Your task to perform on an android device: move a message to another label in the gmail app Image 0: 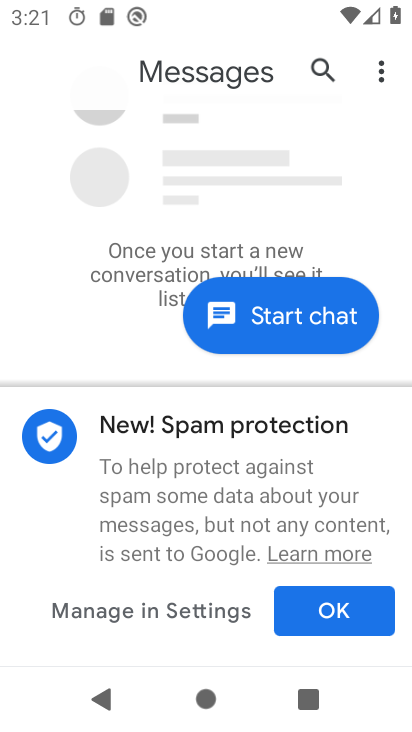
Step 0: press home button
Your task to perform on an android device: move a message to another label in the gmail app Image 1: 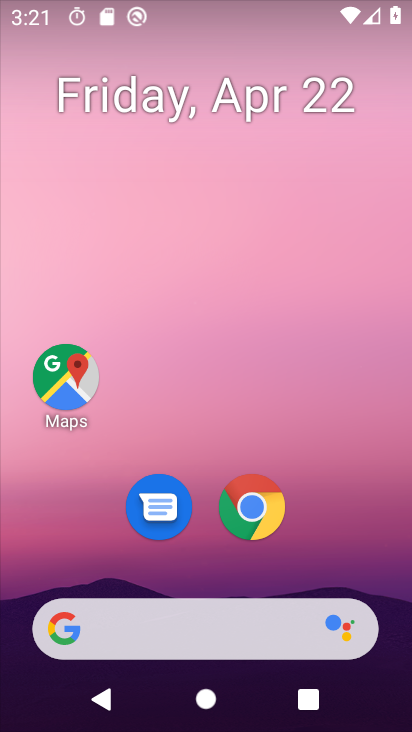
Step 1: drag from (311, 553) to (385, 76)
Your task to perform on an android device: move a message to another label in the gmail app Image 2: 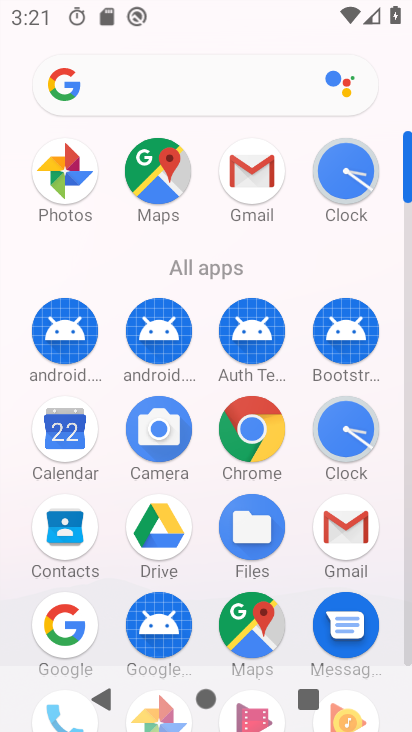
Step 2: click (246, 199)
Your task to perform on an android device: move a message to another label in the gmail app Image 3: 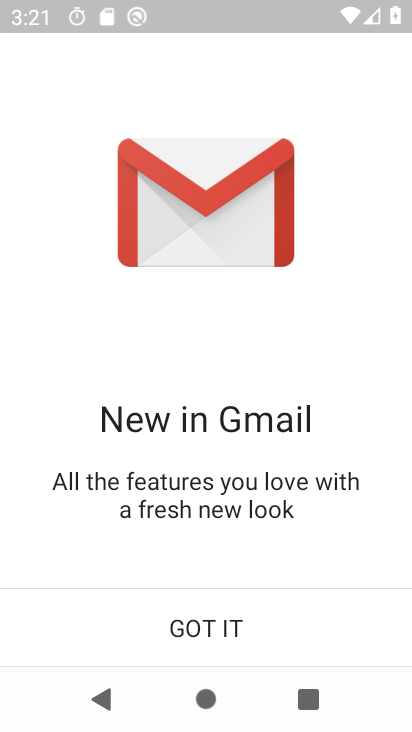
Step 3: click (204, 628)
Your task to perform on an android device: move a message to another label in the gmail app Image 4: 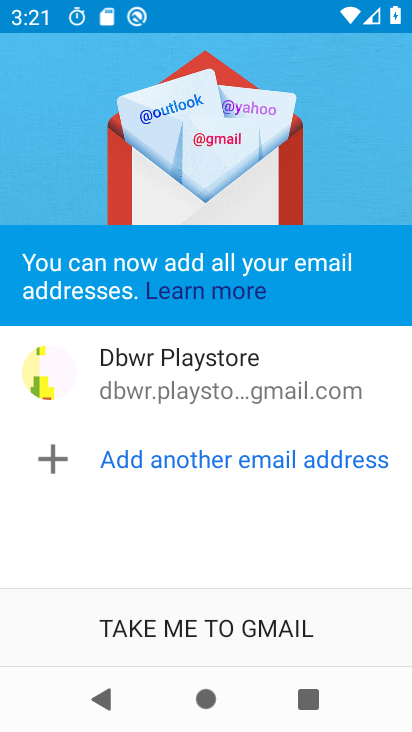
Step 4: click (204, 627)
Your task to perform on an android device: move a message to another label in the gmail app Image 5: 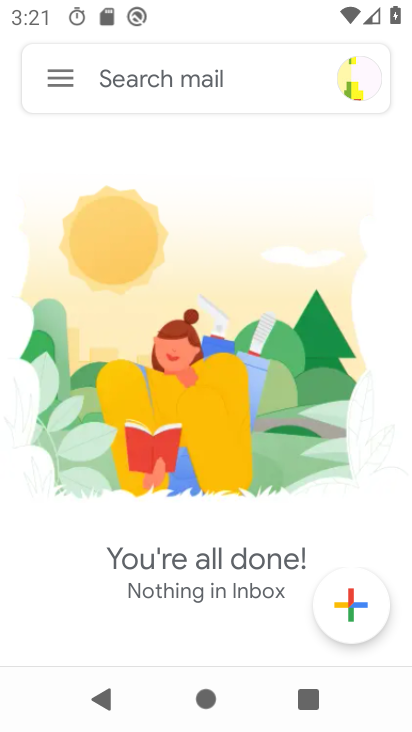
Step 5: task complete